Your task to perform on an android device: turn on the 24-hour format for clock Image 0: 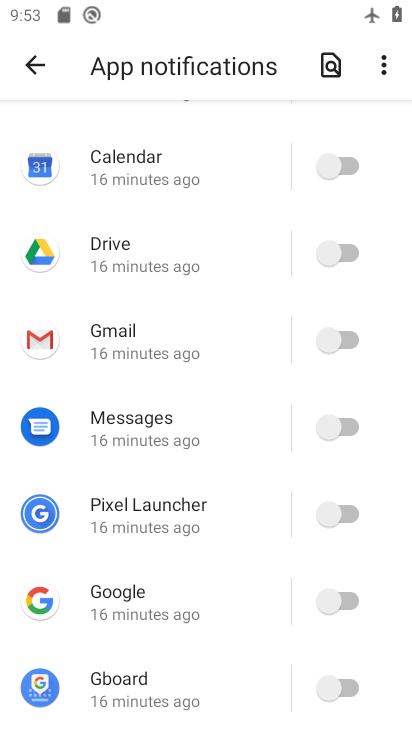
Step 0: press home button
Your task to perform on an android device: turn on the 24-hour format for clock Image 1: 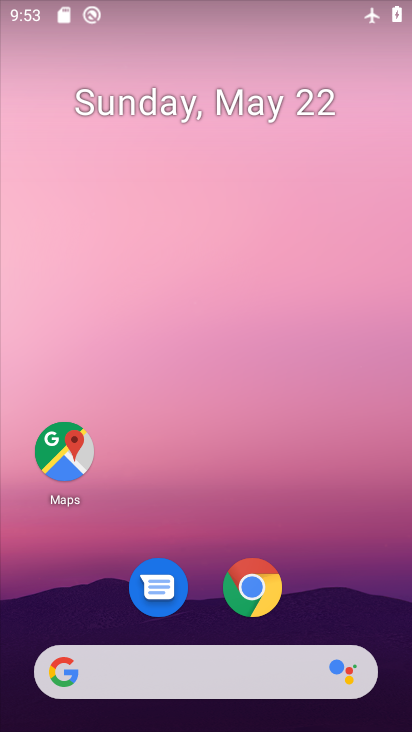
Step 1: drag from (206, 488) to (262, 69)
Your task to perform on an android device: turn on the 24-hour format for clock Image 2: 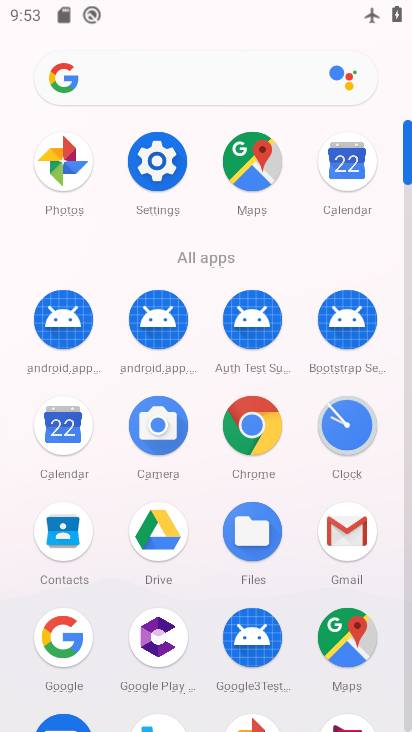
Step 2: click (347, 422)
Your task to perform on an android device: turn on the 24-hour format for clock Image 3: 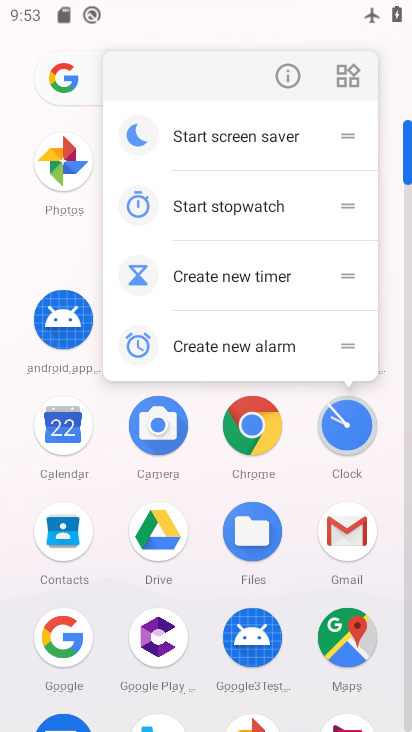
Step 3: click (347, 422)
Your task to perform on an android device: turn on the 24-hour format for clock Image 4: 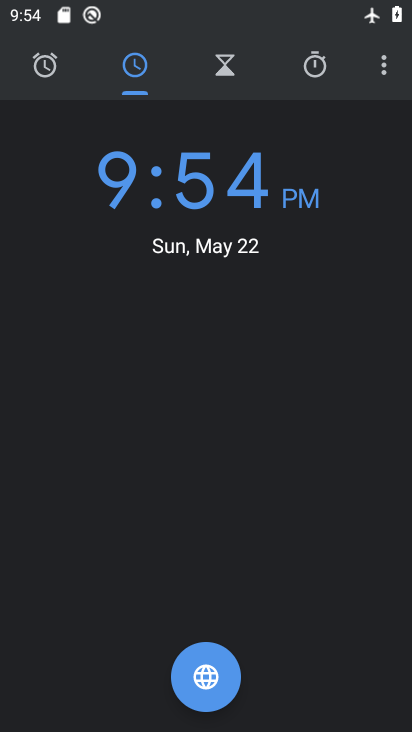
Step 4: click (379, 68)
Your task to perform on an android device: turn on the 24-hour format for clock Image 5: 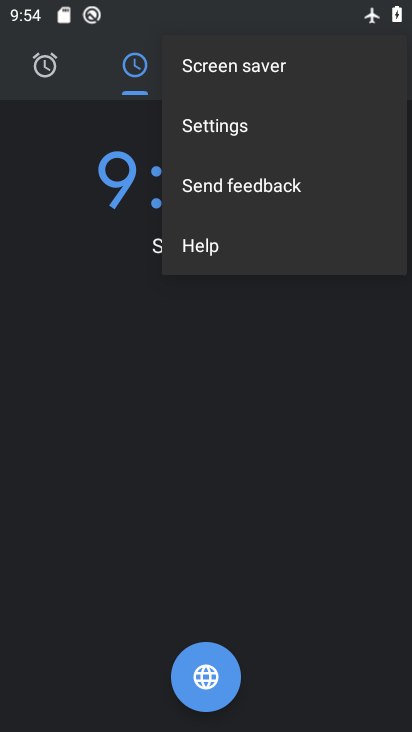
Step 5: click (287, 122)
Your task to perform on an android device: turn on the 24-hour format for clock Image 6: 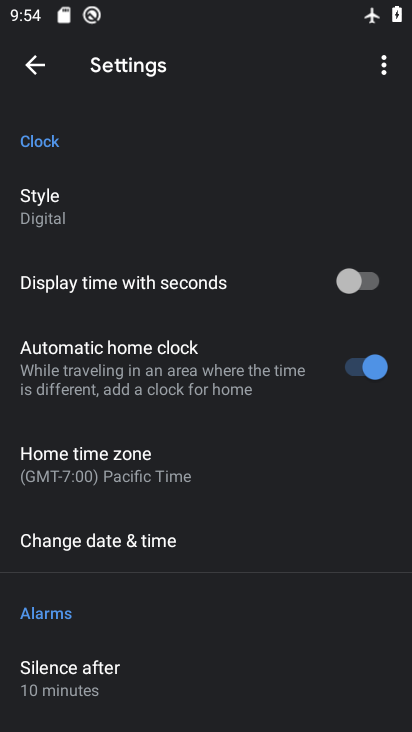
Step 6: click (263, 544)
Your task to perform on an android device: turn on the 24-hour format for clock Image 7: 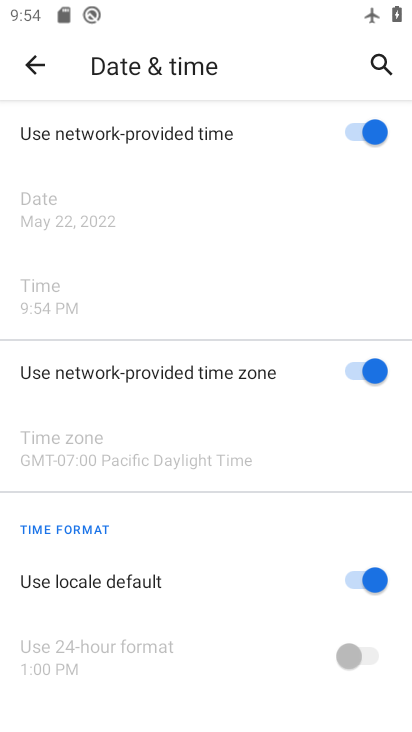
Step 7: click (364, 567)
Your task to perform on an android device: turn on the 24-hour format for clock Image 8: 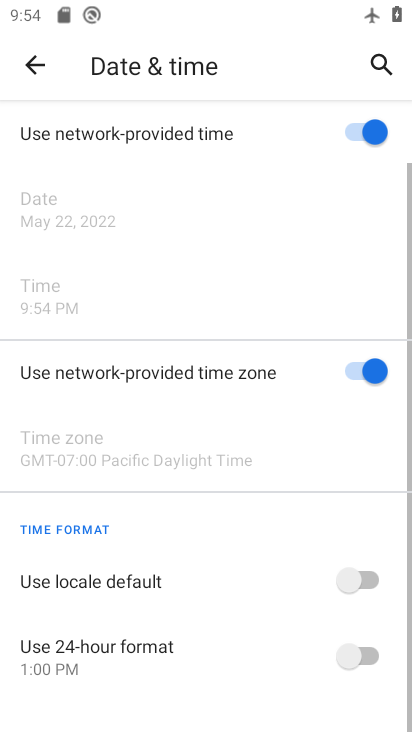
Step 8: click (368, 642)
Your task to perform on an android device: turn on the 24-hour format for clock Image 9: 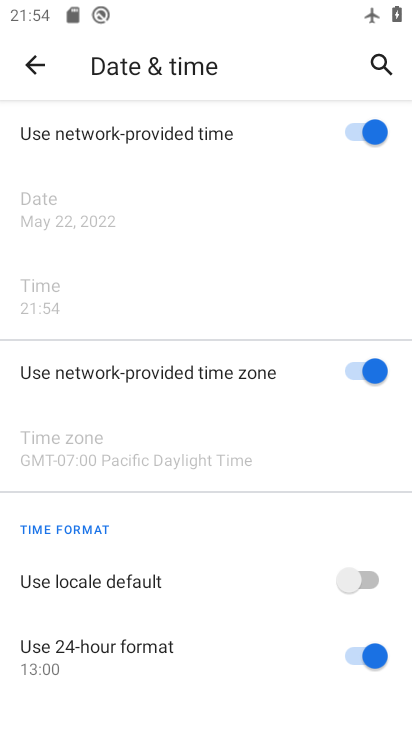
Step 9: task complete